Your task to perform on an android device: open app "Airtel Thanks" Image 0: 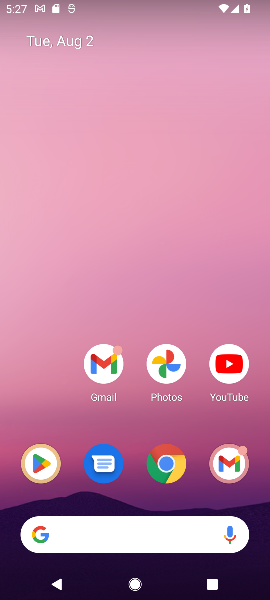
Step 0: click (39, 466)
Your task to perform on an android device: open app "Airtel Thanks" Image 1: 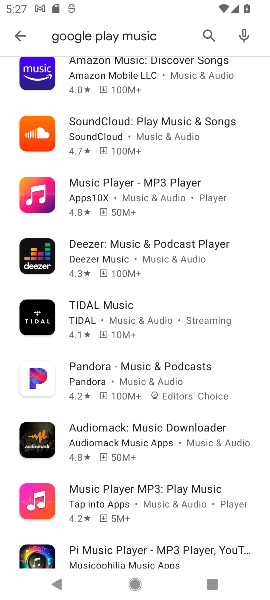
Step 1: click (206, 41)
Your task to perform on an android device: open app "Airtel Thanks" Image 2: 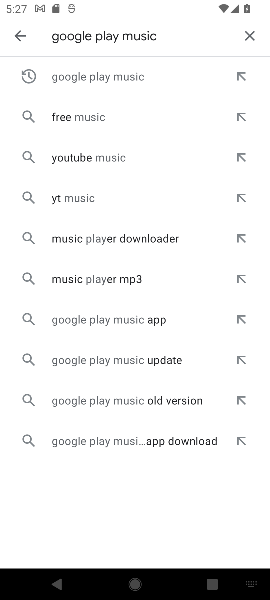
Step 2: click (249, 33)
Your task to perform on an android device: open app "Airtel Thanks" Image 3: 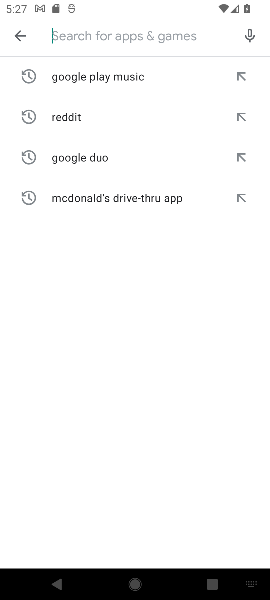
Step 3: type "Airtel Thanks"
Your task to perform on an android device: open app "Airtel Thanks" Image 4: 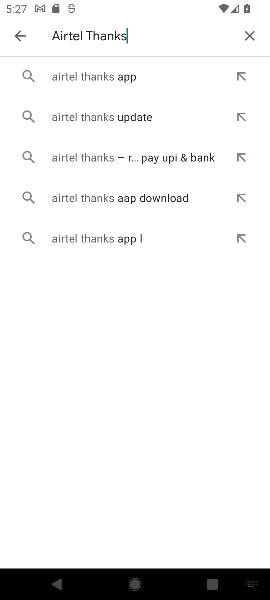
Step 4: click (131, 77)
Your task to perform on an android device: open app "Airtel Thanks" Image 5: 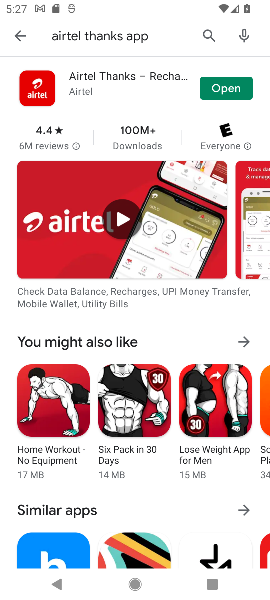
Step 5: click (239, 88)
Your task to perform on an android device: open app "Airtel Thanks" Image 6: 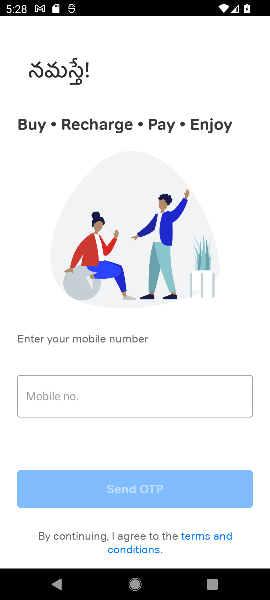
Step 6: task complete